Your task to perform on an android device: turn on sleep mode Image 0: 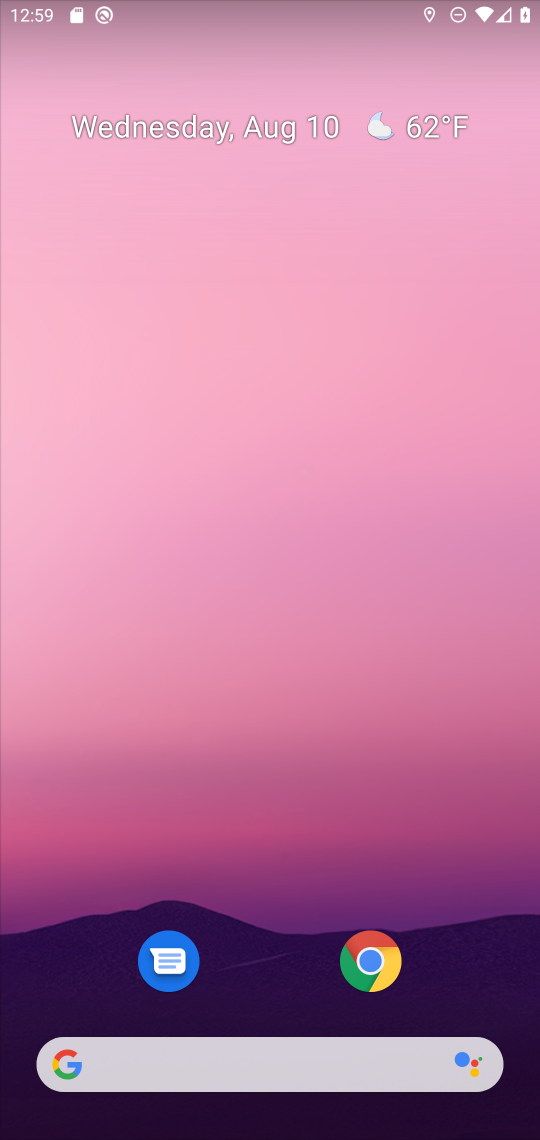
Step 0: drag from (259, 1007) to (209, 115)
Your task to perform on an android device: turn on sleep mode Image 1: 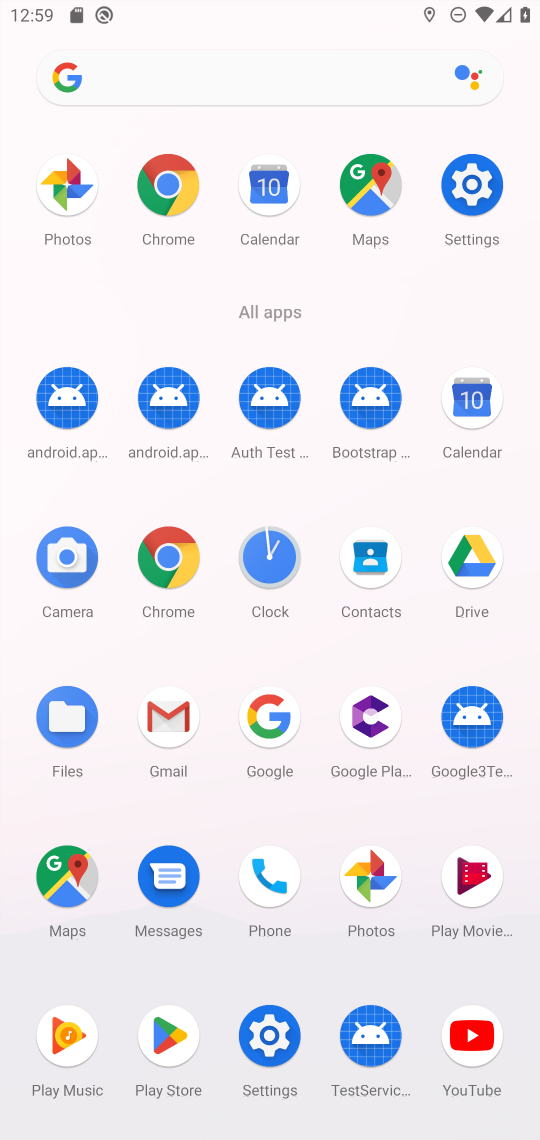
Step 1: click (472, 181)
Your task to perform on an android device: turn on sleep mode Image 2: 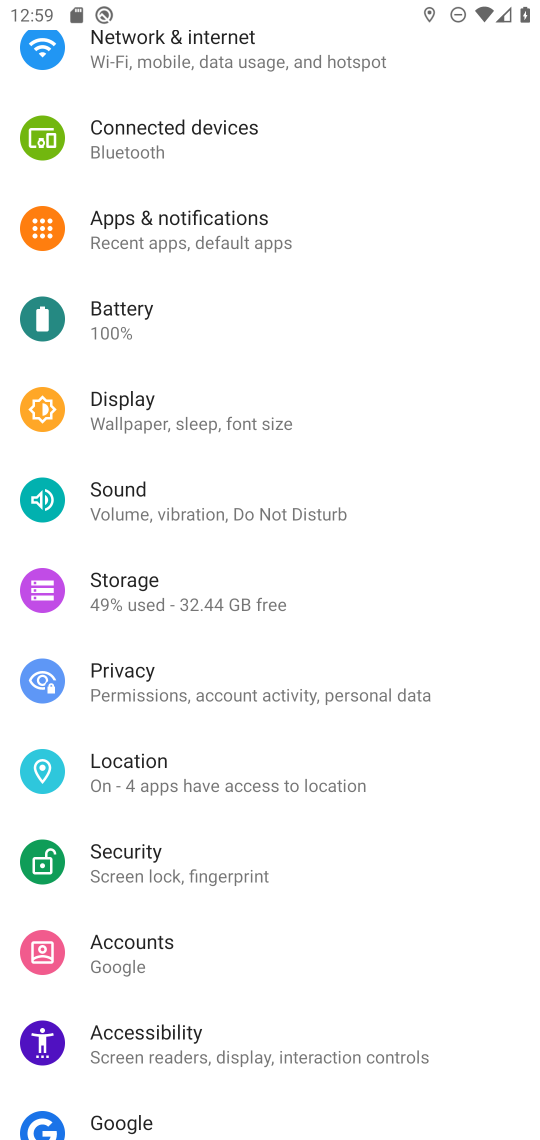
Step 2: click (120, 407)
Your task to perform on an android device: turn on sleep mode Image 3: 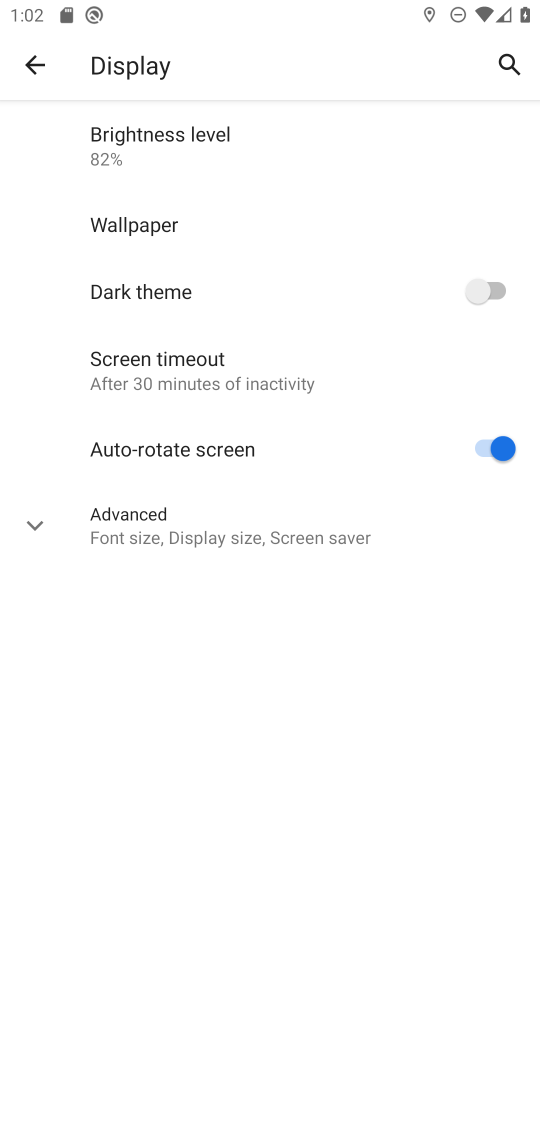
Step 3: task complete